Your task to perform on an android device: Open Yahoo.com Image 0: 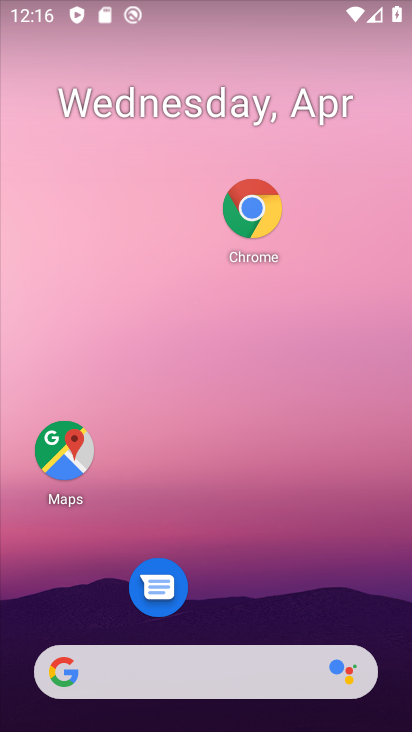
Step 0: click (262, 210)
Your task to perform on an android device: Open Yahoo.com Image 1: 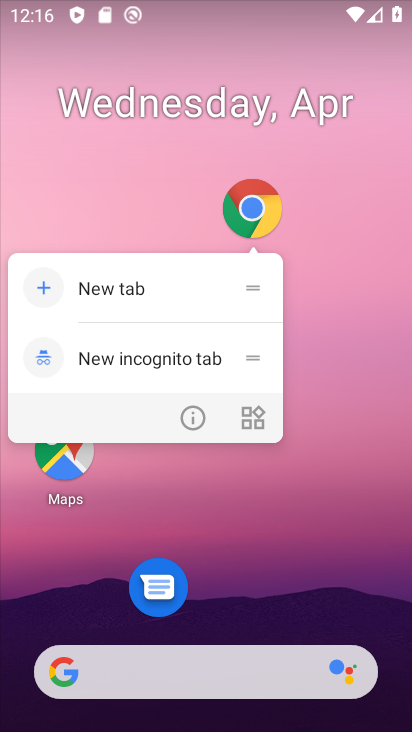
Step 1: click (200, 409)
Your task to perform on an android device: Open Yahoo.com Image 2: 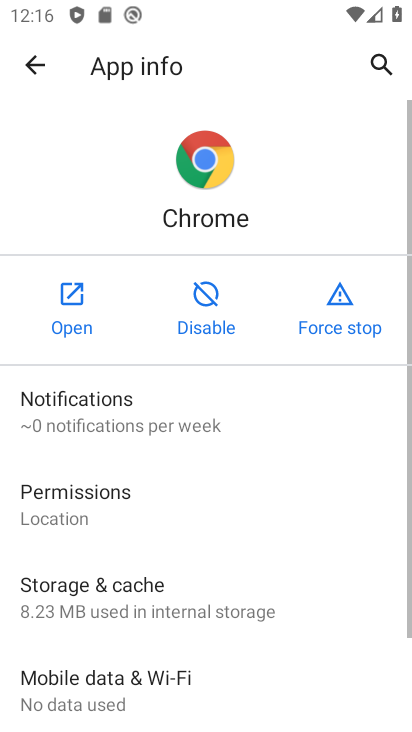
Step 2: click (69, 323)
Your task to perform on an android device: Open Yahoo.com Image 3: 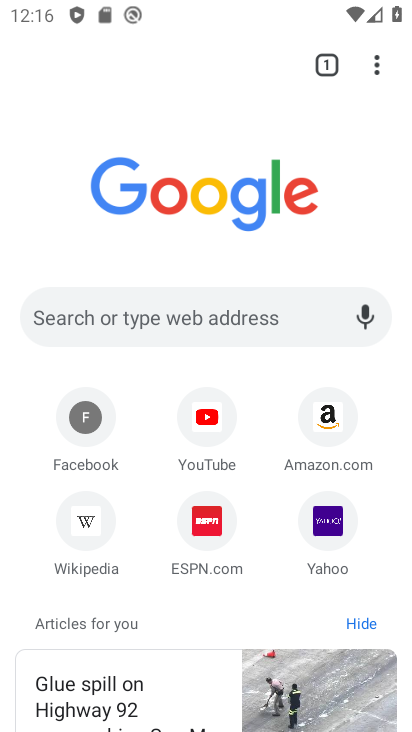
Step 3: click (144, 323)
Your task to perform on an android device: Open Yahoo.com Image 4: 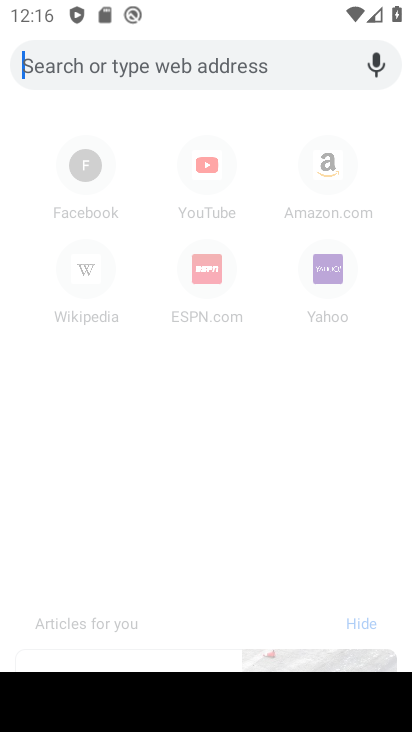
Step 4: type "Yahoo.com"
Your task to perform on an android device: Open Yahoo.com Image 5: 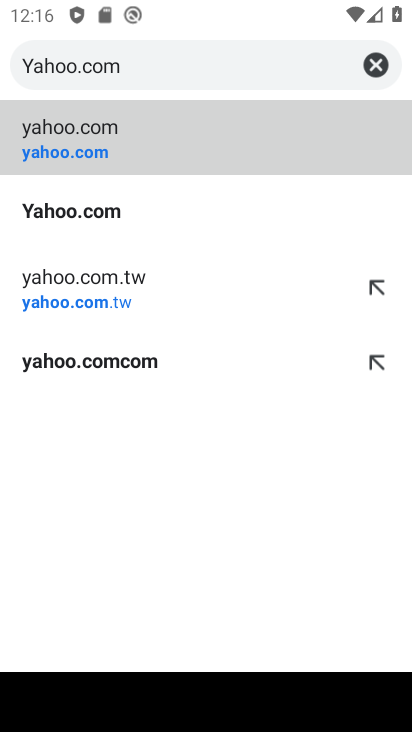
Step 5: click (127, 153)
Your task to perform on an android device: Open Yahoo.com Image 6: 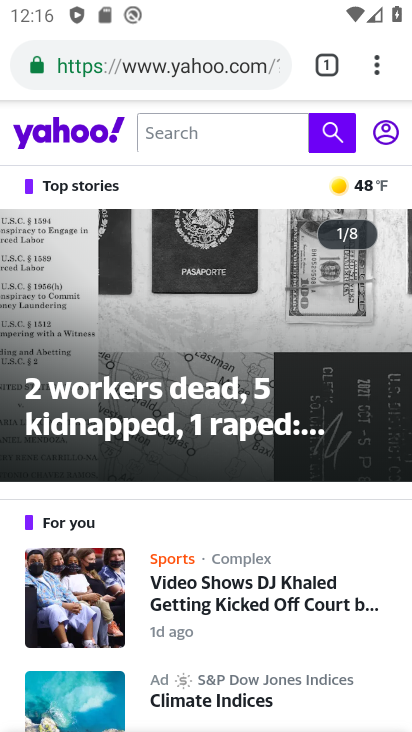
Step 6: task complete